Your task to perform on an android device: Open Google Image 0: 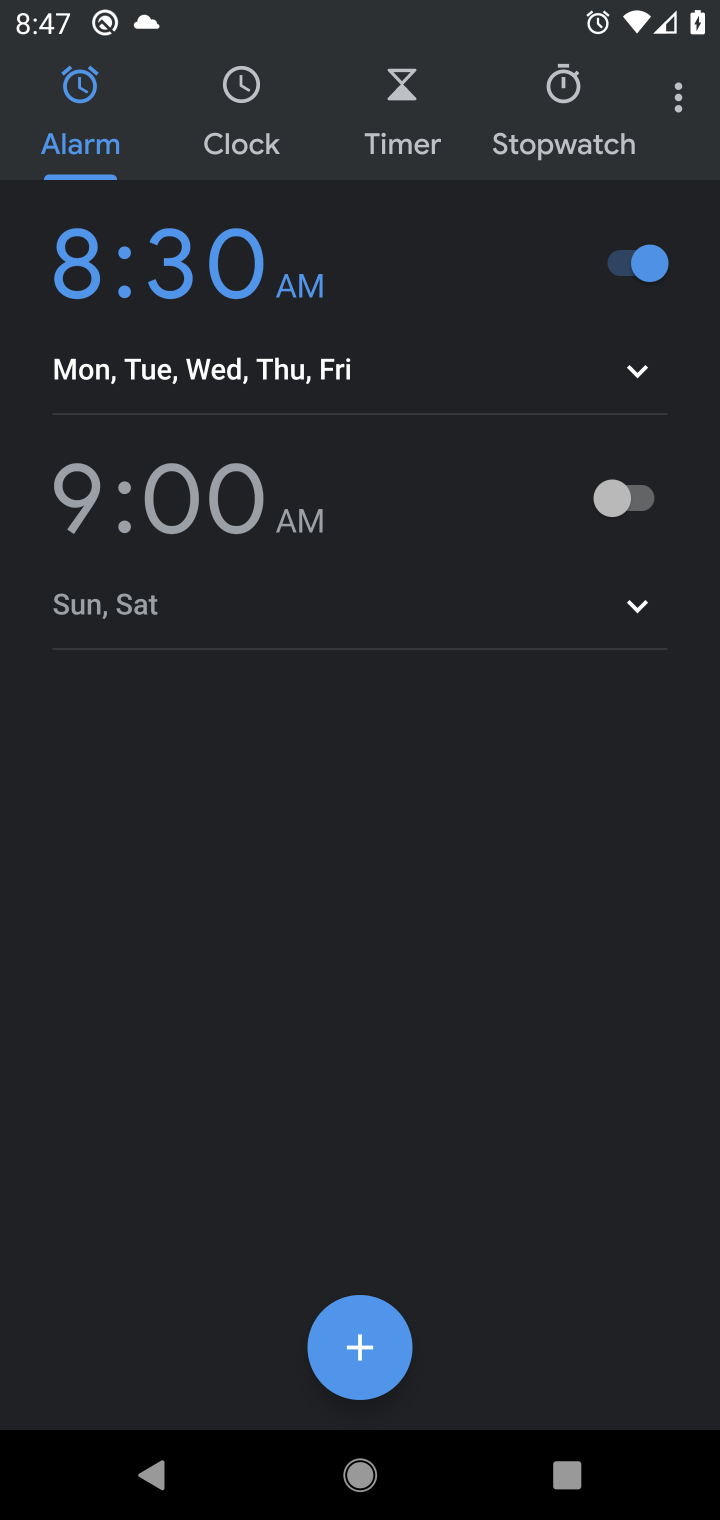
Step 0: press home button
Your task to perform on an android device: Open Google Image 1: 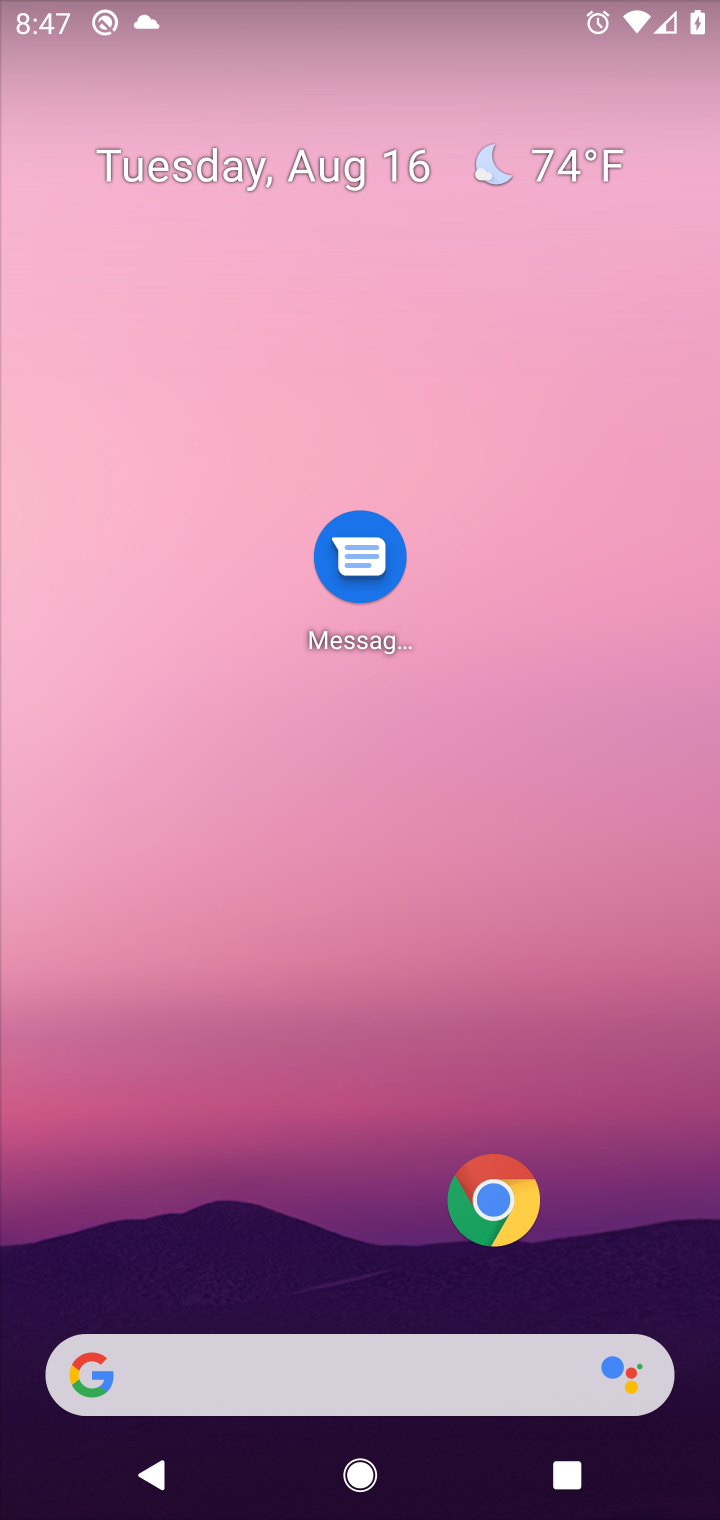
Step 1: click (208, 1366)
Your task to perform on an android device: Open Google Image 2: 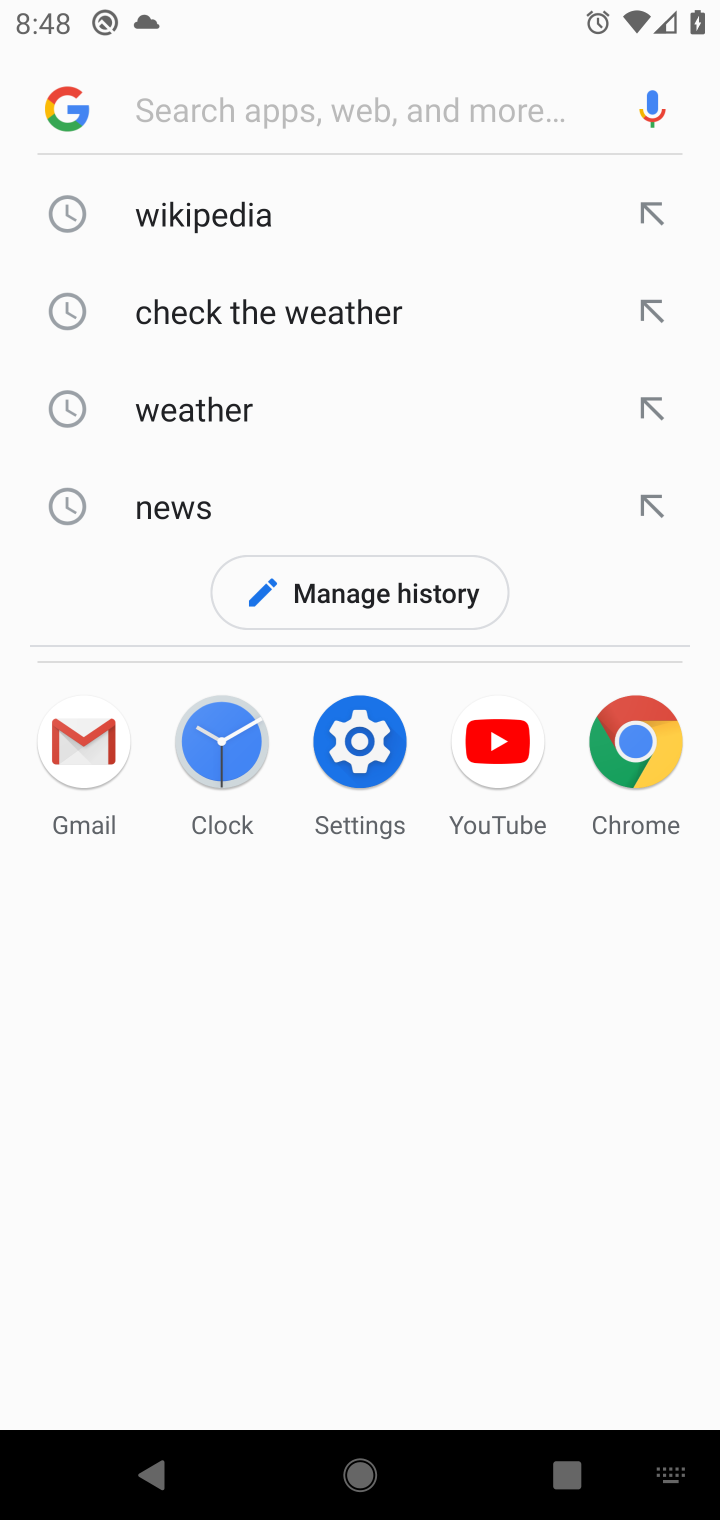
Step 2: task complete